Your task to perform on an android device: Open Chrome and go to settings Image 0: 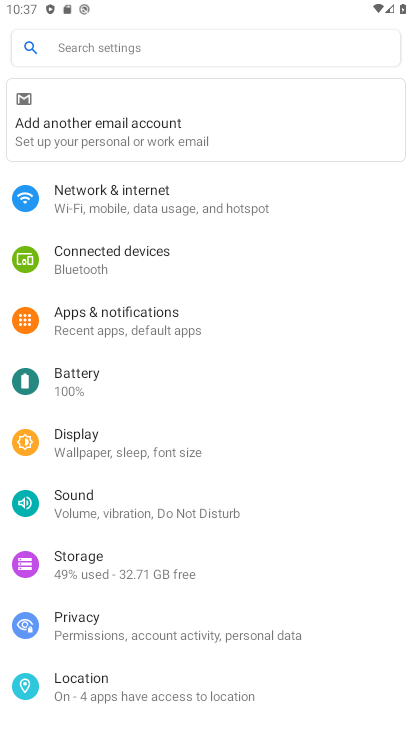
Step 0: press home button
Your task to perform on an android device: Open Chrome and go to settings Image 1: 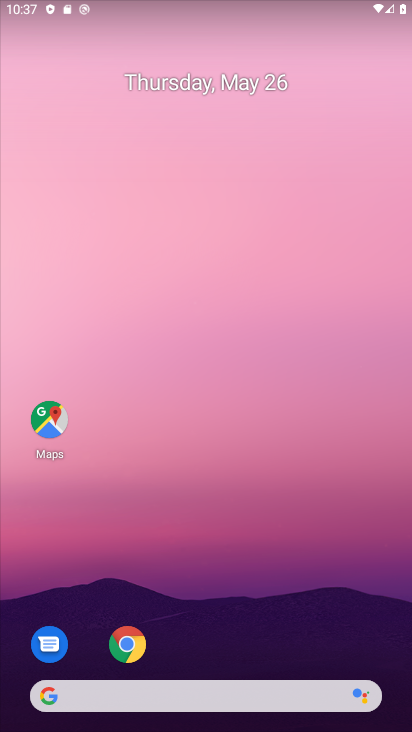
Step 1: click (139, 656)
Your task to perform on an android device: Open Chrome and go to settings Image 2: 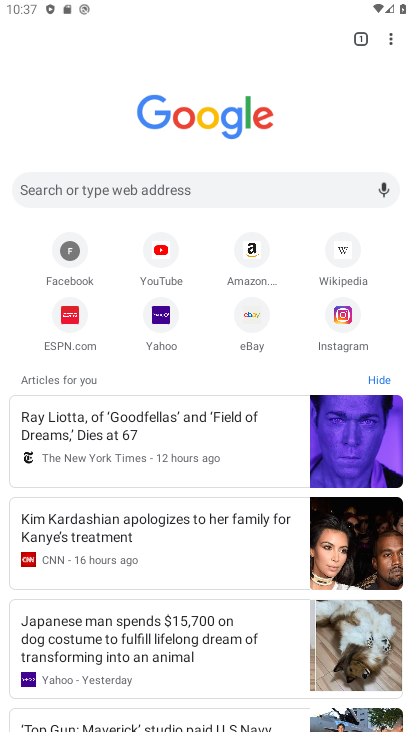
Step 2: task complete